Your task to perform on an android device: toggle show notifications on the lock screen Image 0: 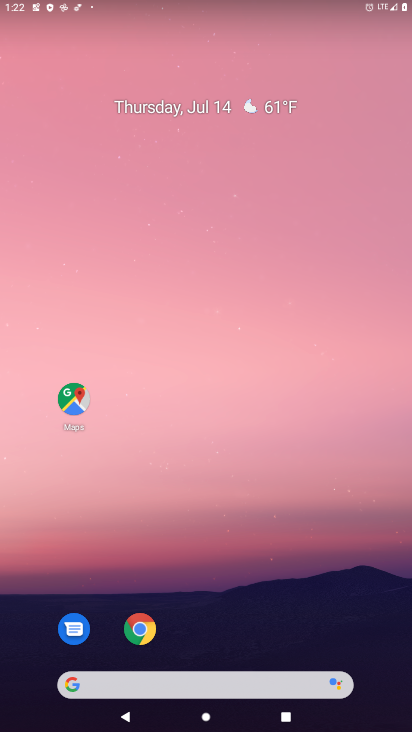
Step 0: drag from (241, 615) to (215, 50)
Your task to perform on an android device: toggle show notifications on the lock screen Image 1: 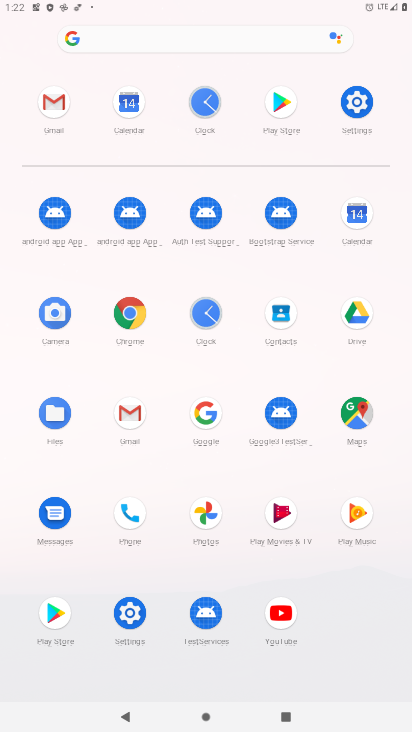
Step 1: click (361, 100)
Your task to perform on an android device: toggle show notifications on the lock screen Image 2: 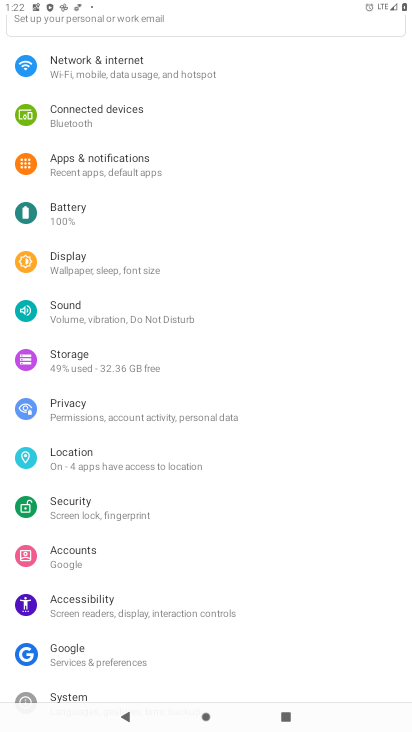
Step 2: click (110, 151)
Your task to perform on an android device: toggle show notifications on the lock screen Image 3: 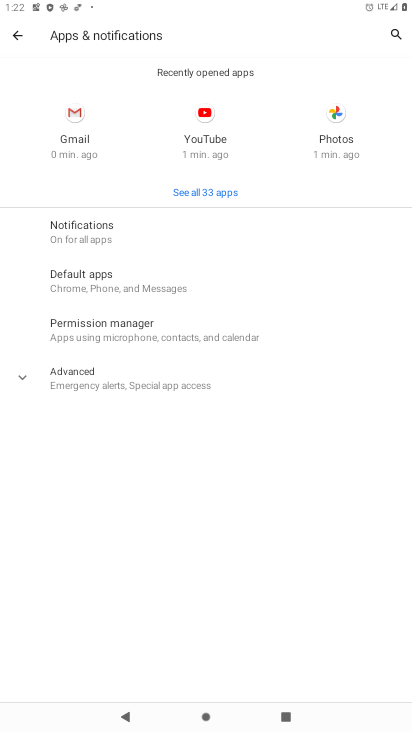
Step 3: click (75, 220)
Your task to perform on an android device: toggle show notifications on the lock screen Image 4: 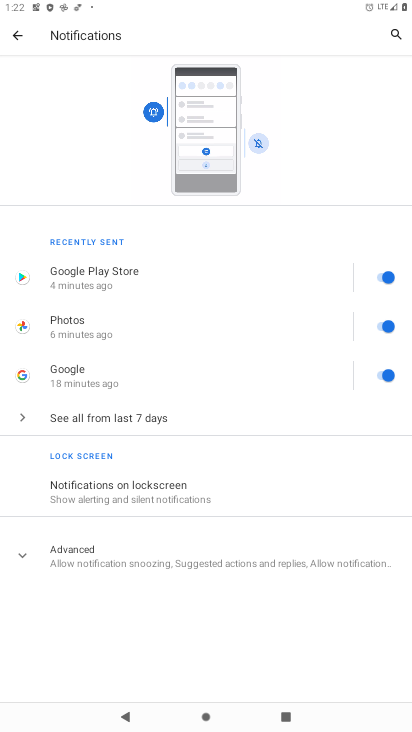
Step 4: click (130, 483)
Your task to perform on an android device: toggle show notifications on the lock screen Image 5: 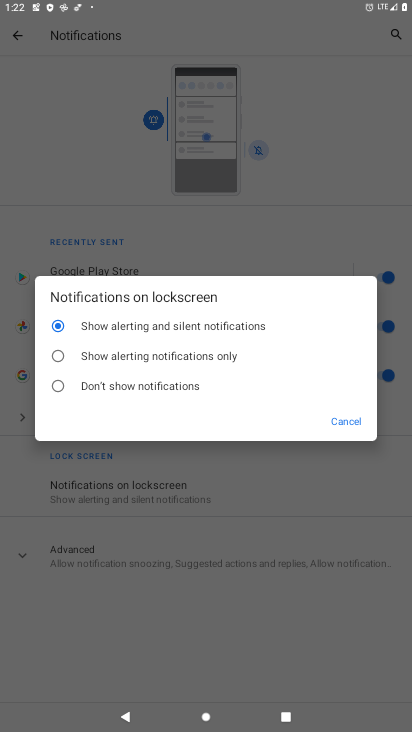
Step 5: click (54, 379)
Your task to perform on an android device: toggle show notifications on the lock screen Image 6: 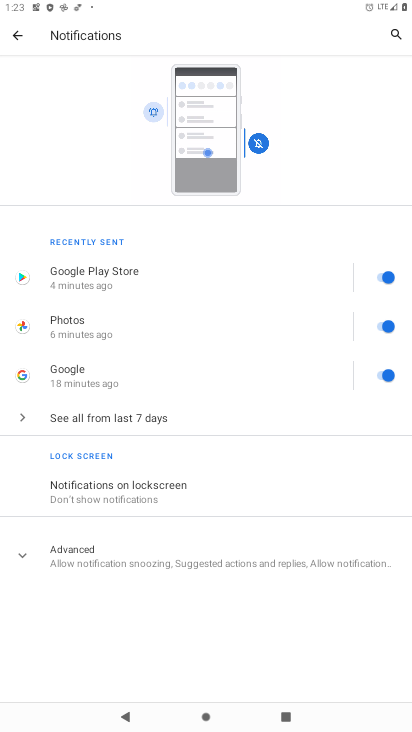
Step 6: task complete